Your task to perform on an android device: turn off notifications settings in the gmail app Image 0: 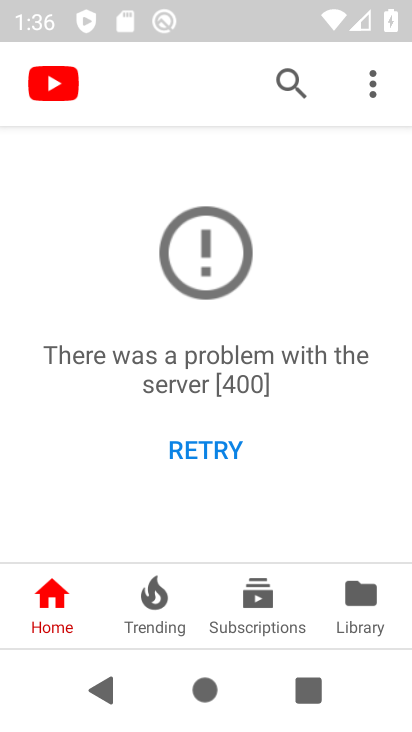
Step 0: press home button
Your task to perform on an android device: turn off notifications settings in the gmail app Image 1: 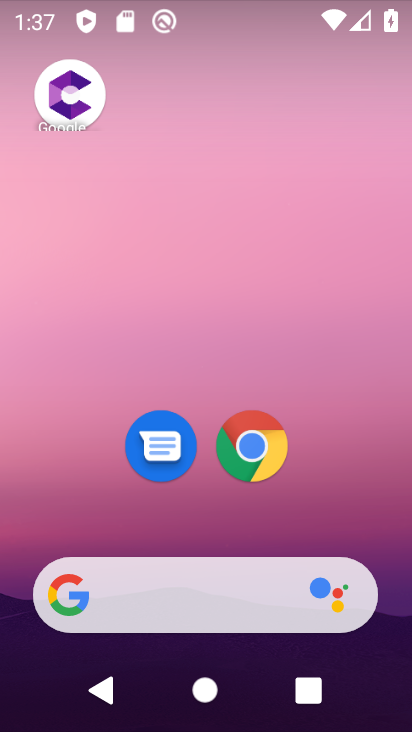
Step 1: drag from (369, 499) to (329, 63)
Your task to perform on an android device: turn off notifications settings in the gmail app Image 2: 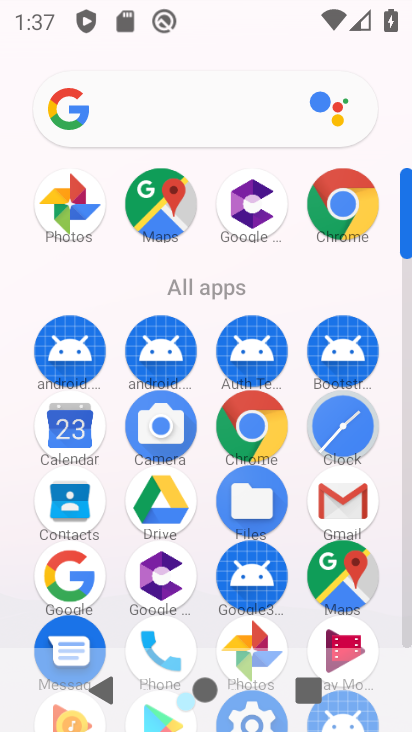
Step 2: drag from (199, 617) to (206, 381)
Your task to perform on an android device: turn off notifications settings in the gmail app Image 3: 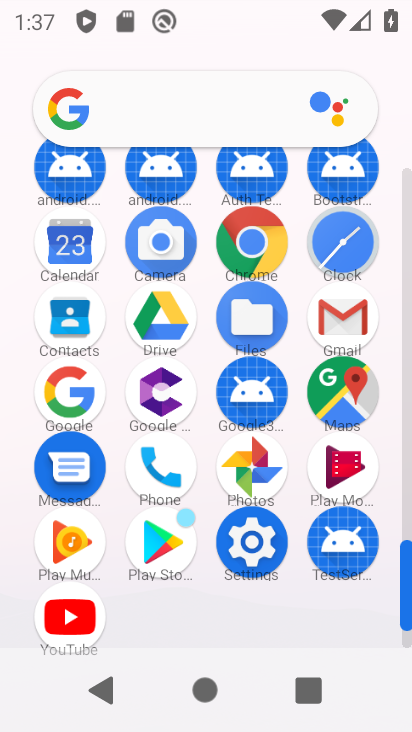
Step 3: drag from (187, 306) to (151, 535)
Your task to perform on an android device: turn off notifications settings in the gmail app Image 4: 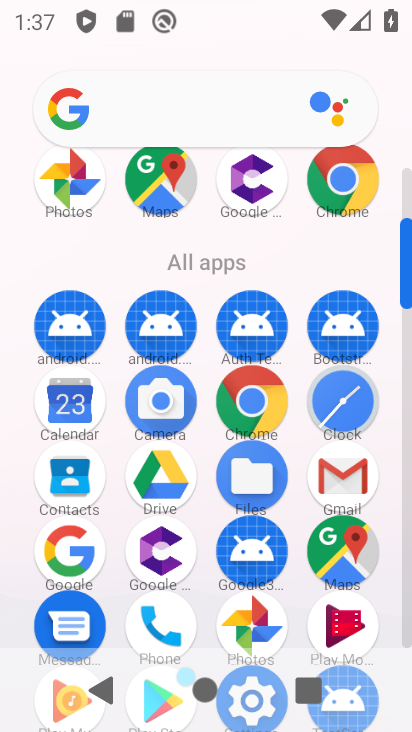
Step 4: click (329, 487)
Your task to perform on an android device: turn off notifications settings in the gmail app Image 5: 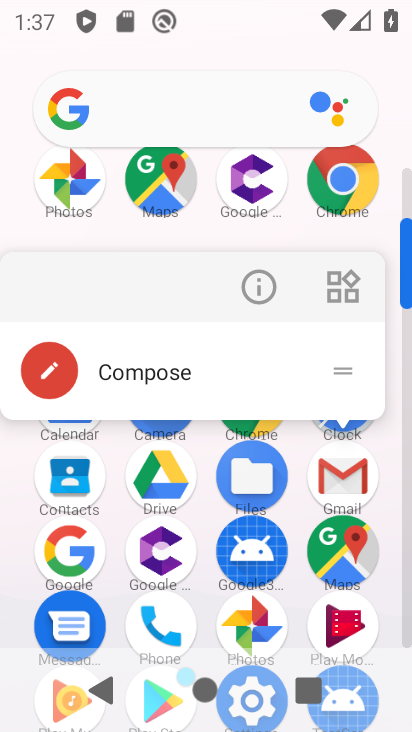
Step 5: click (329, 460)
Your task to perform on an android device: turn off notifications settings in the gmail app Image 6: 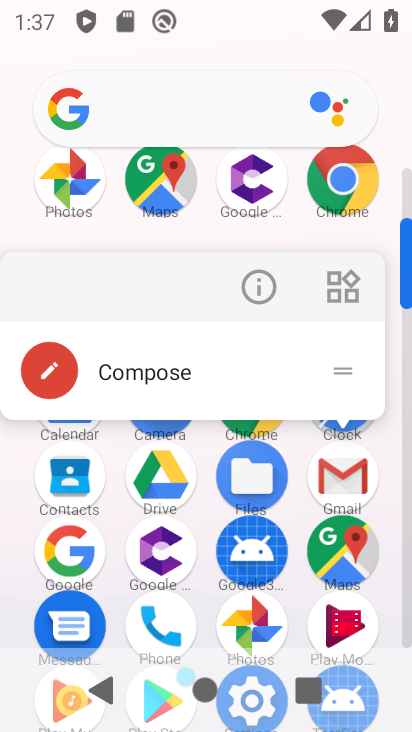
Step 6: click (324, 474)
Your task to perform on an android device: turn off notifications settings in the gmail app Image 7: 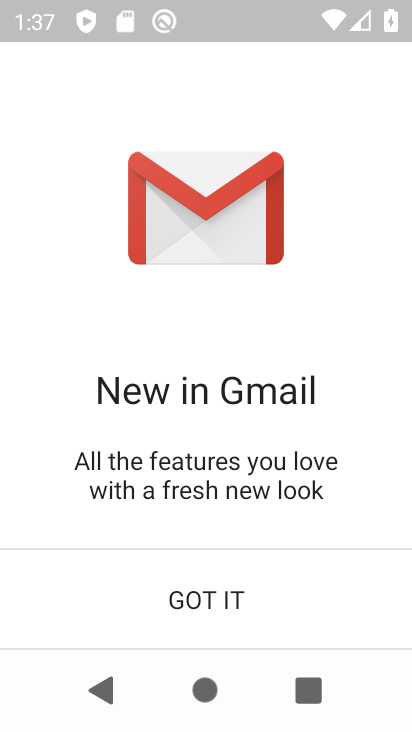
Step 7: click (198, 621)
Your task to perform on an android device: turn off notifications settings in the gmail app Image 8: 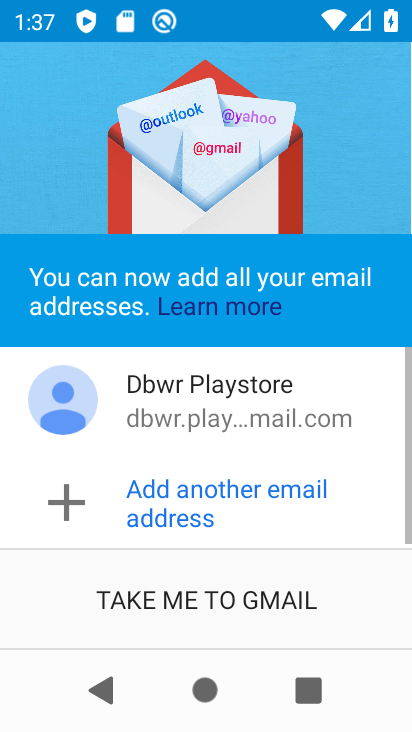
Step 8: click (198, 615)
Your task to perform on an android device: turn off notifications settings in the gmail app Image 9: 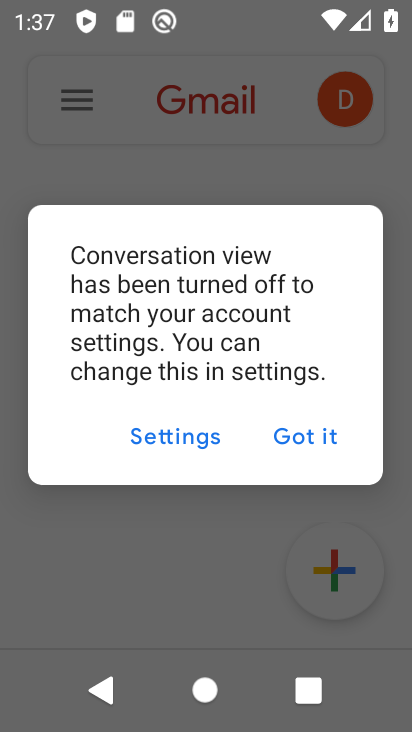
Step 9: click (294, 455)
Your task to perform on an android device: turn off notifications settings in the gmail app Image 10: 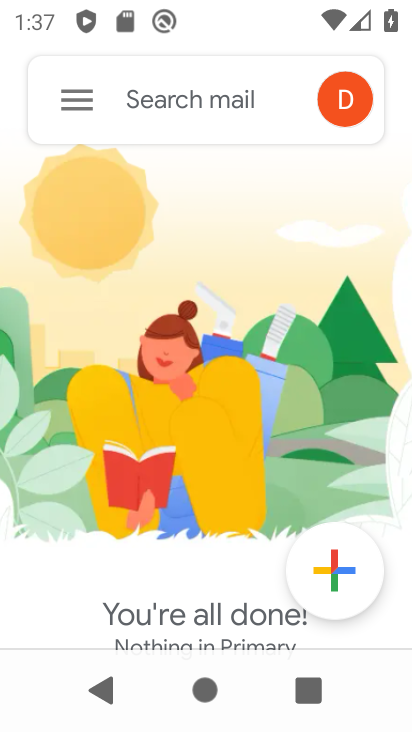
Step 10: click (84, 119)
Your task to perform on an android device: turn off notifications settings in the gmail app Image 11: 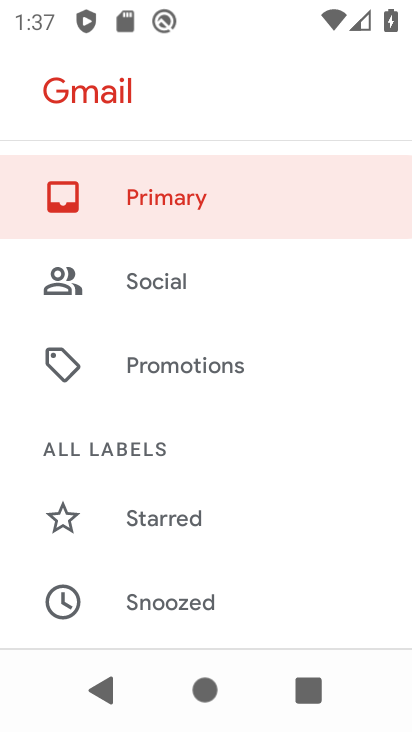
Step 11: drag from (134, 584) to (147, 233)
Your task to perform on an android device: turn off notifications settings in the gmail app Image 12: 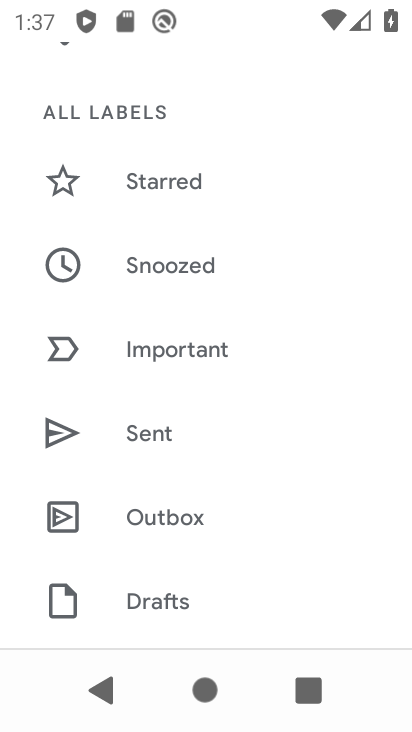
Step 12: drag from (149, 523) to (194, 227)
Your task to perform on an android device: turn off notifications settings in the gmail app Image 13: 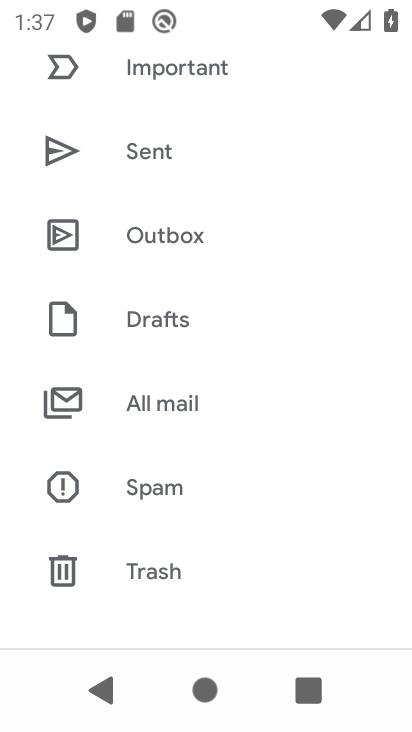
Step 13: drag from (172, 544) to (213, 275)
Your task to perform on an android device: turn off notifications settings in the gmail app Image 14: 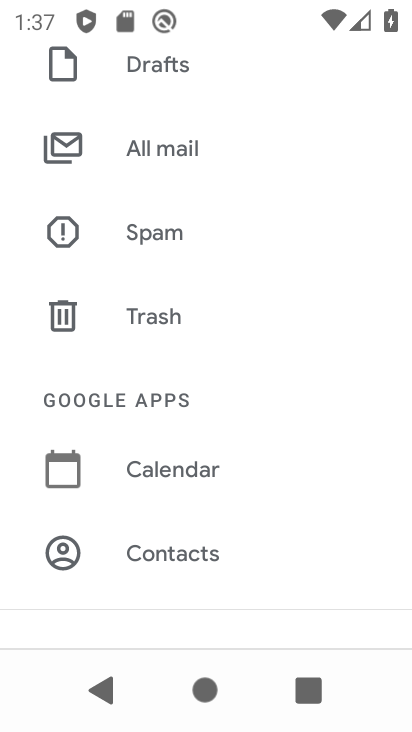
Step 14: drag from (218, 526) to (240, 255)
Your task to perform on an android device: turn off notifications settings in the gmail app Image 15: 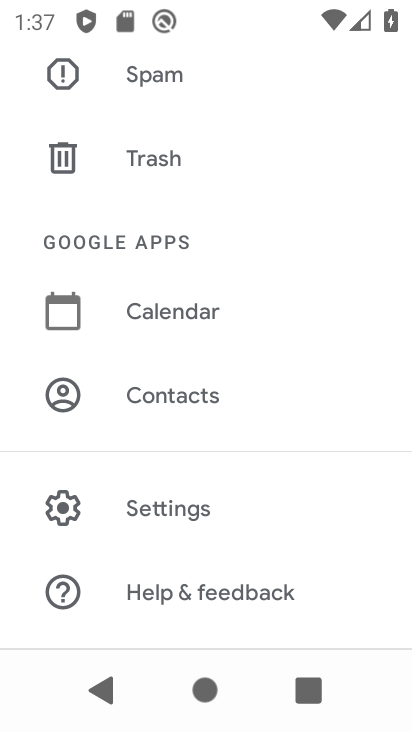
Step 15: click (230, 513)
Your task to perform on an android device: turn off notifications settings in the gmail app Image 16: 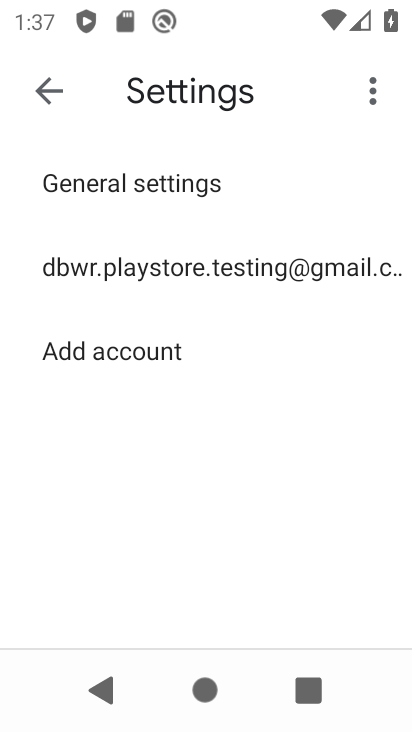
Step 16: click (273, 260)
Your task to perform on an android device: turn off notifications settings in the gmail app Image 17: 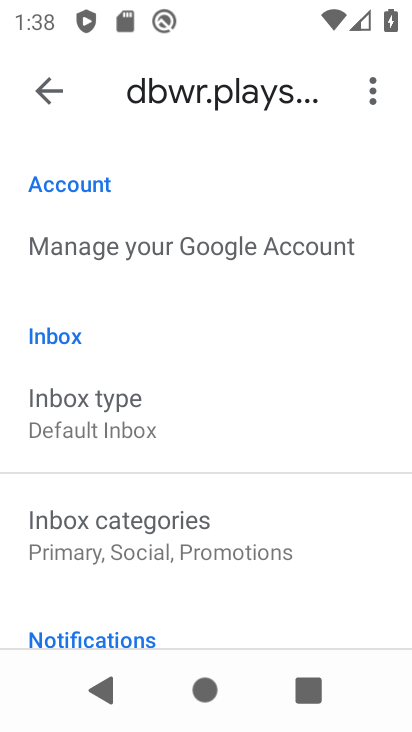
Step 17: drag from (247, 593) to (246, 280)
Your task to perform on an android device: turn off notifications settings in the gmail app Image 18: 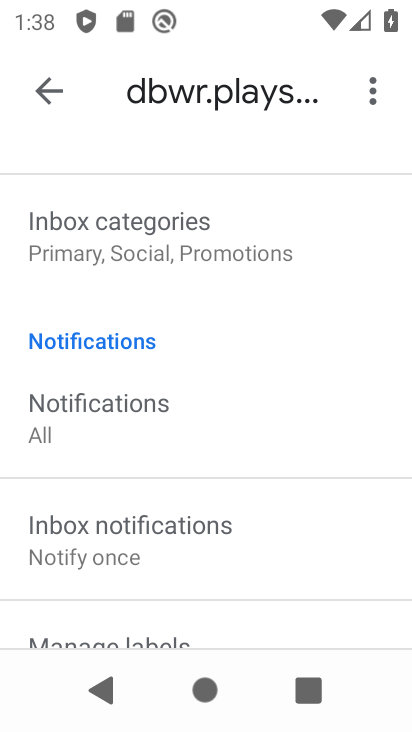
Step 18: click (139, 402)
Your task to perform on an android device: turn off notifications settings in the gmail app Image 19: 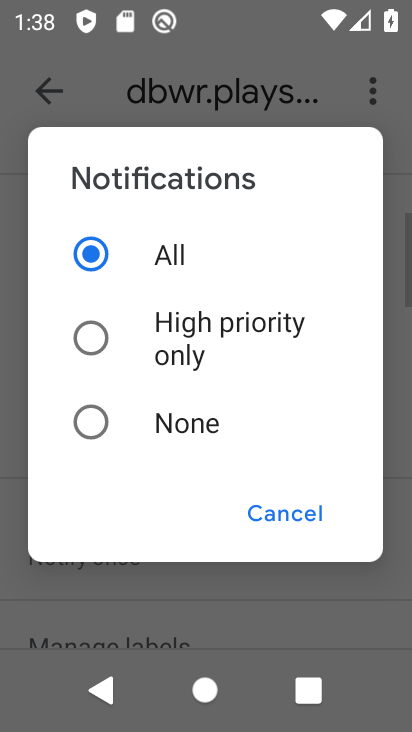
Step 19: click (101, 420)
Your task to perform on an android device: turn off notifications settings in the gmail app Image 20: 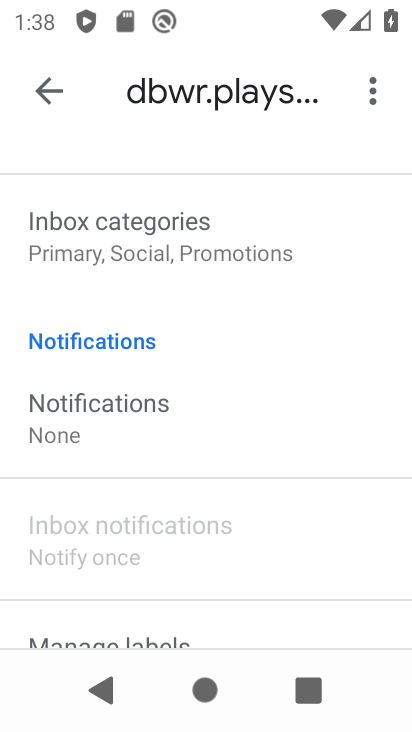
Step 20: task complete